Your task to perform on an android device: Set the phone to "Do not disturb". Image 0: 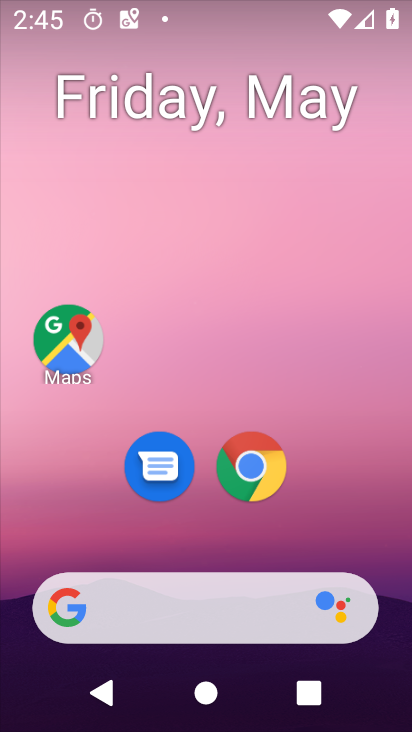
Step 0: drag from (380, 93) to (380, 6)
Your task to perform on an android device: Set the phone to "Do not disturb". Image 1: 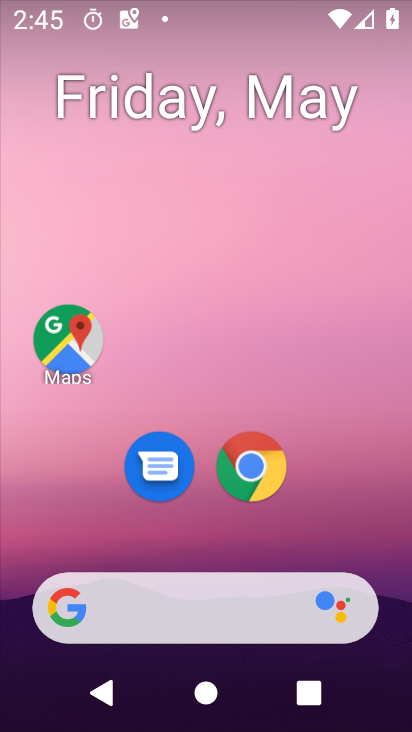
Step 1: drag from (365, 502) to (382, 8)
Your task to perform on an android device: Set the phone to "Do not disturb". Image 2: 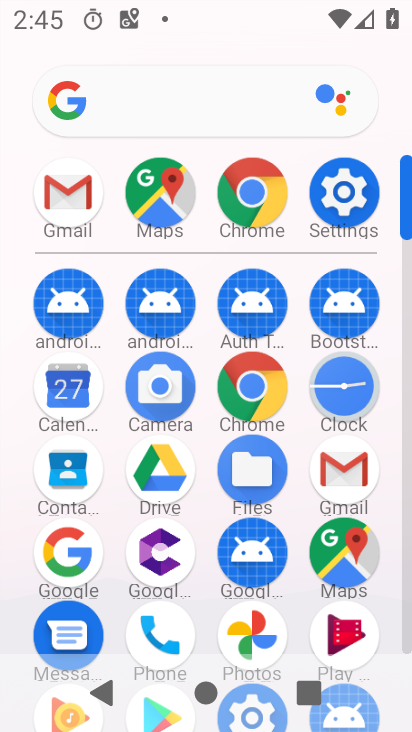
Step 2: click (322, 227)
Your task to perform on an android device: Set the phone to "Do not disturb". Image 3: 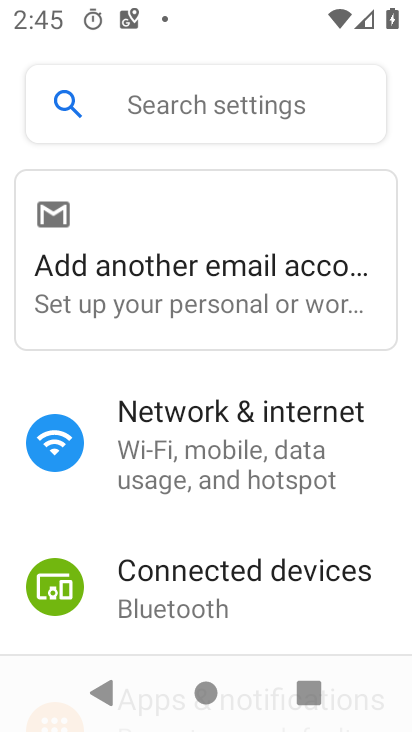
Step 3: drag from (230, 555) to (218, 212)
Your task to perform on an android device: Set the phone to "Do not disturb". Image 4: 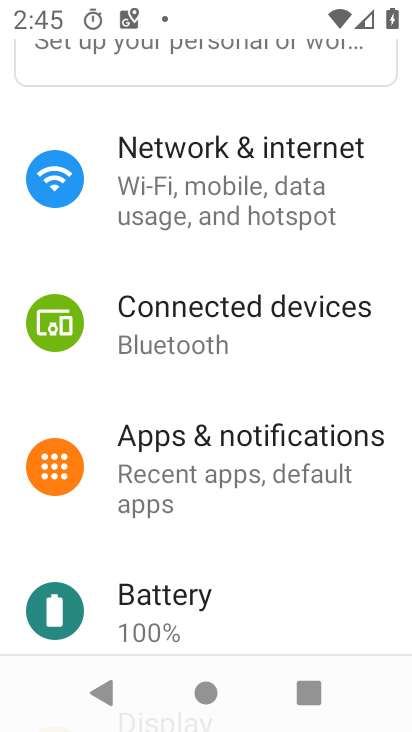
Step 4: drag from (263, 547) to (314, 64)
Your task to perform on an android device: Set the phone to "Do not disturb". Image 5: 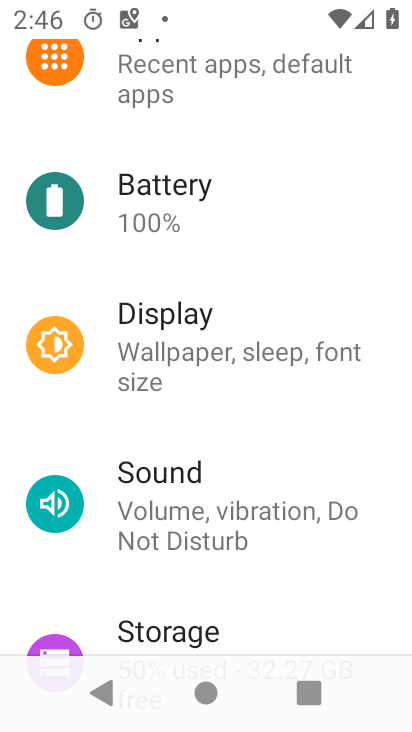
Step 5: click (207, 498)
Your task to perform on an android device: Set the phone to "Do not disturb". Image 6: 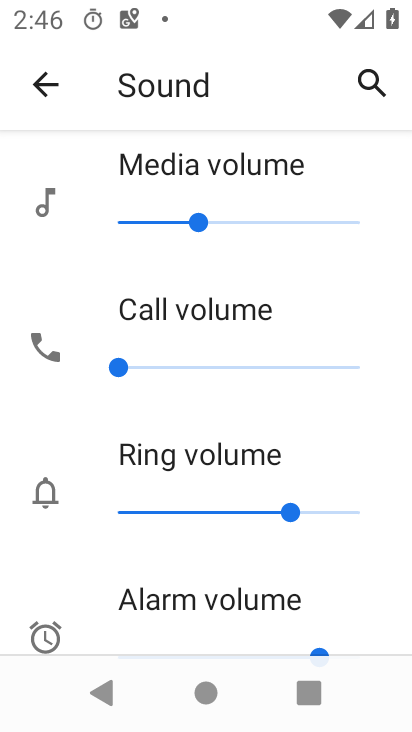
Step 6: drag from (193, 553) to (286, 107)
Your task to perform on an android device: Set the phone to "Do not disturb". Image 7: 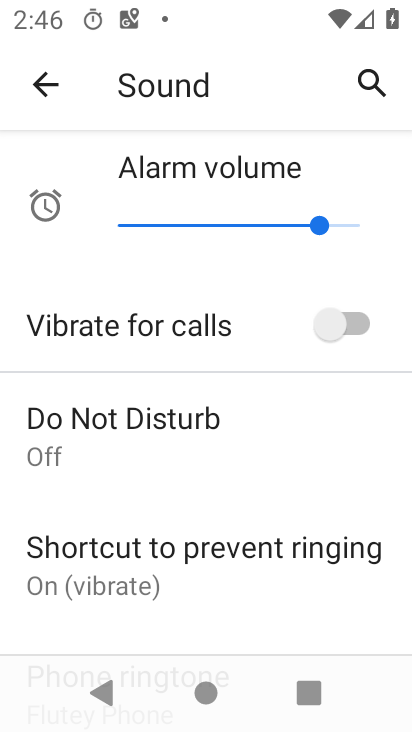
Step 7: drag from (236, 436) to (235, 338)
Your task to perform on an android device: Set the phone to "Do not disturb". Image 8: 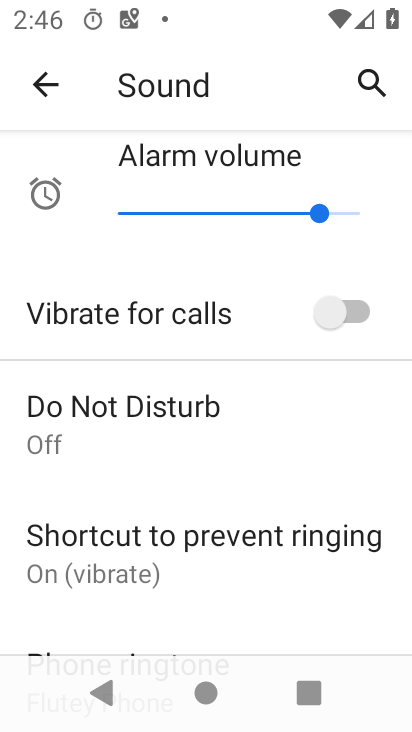
Step 8: click (111, 406)
Your task to perform on an android device: Set the phone to "Do not disturb". Image 9: 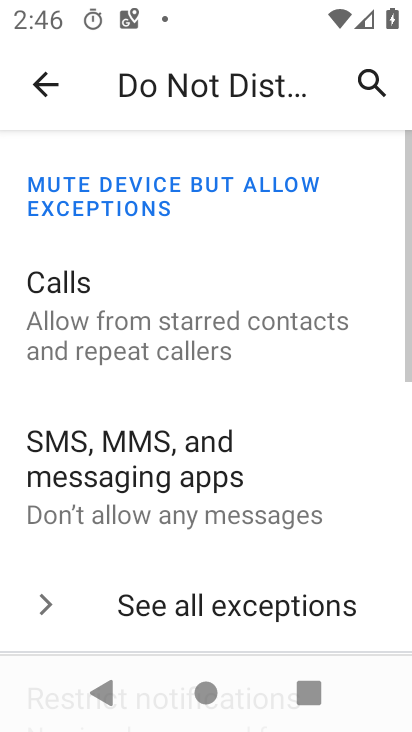
Step 9: drag from (235, 599) to (270, 115)
Your task to perform on an android device: Set the phone to "Do not disturb". Image 10: 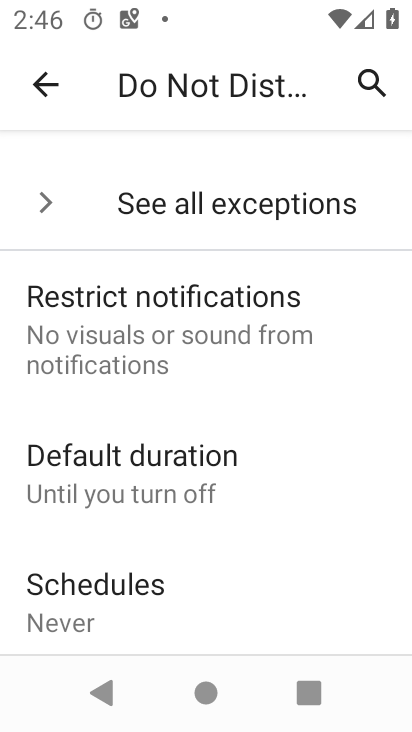
Step 10: drag from (205, 577) to (264, 89)
Your task to perform on an android device: Set the phone to "Do not disturb". Image 11: 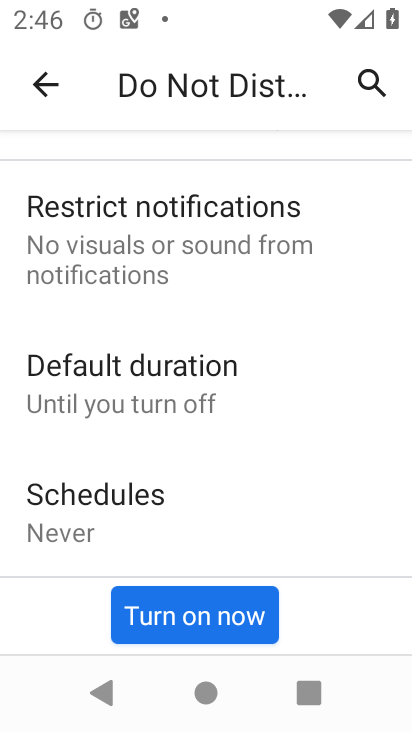
Step 11: click (193, 619)
Your task to perform on an android device: Set the phone to "Do not disturb". Image 12: 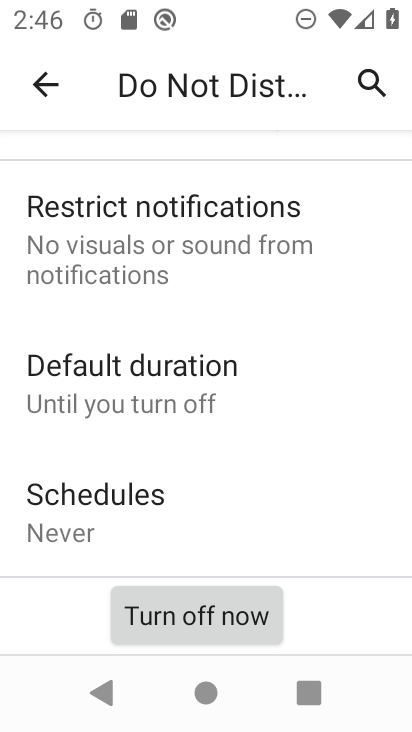
Step 12: task complete